Your task to perform on an android device: Clear the shopping cart on newegg. Search for "jbl flip 4" on newegg, select the first entry, add it to the cart, then select checkout. Image 0: 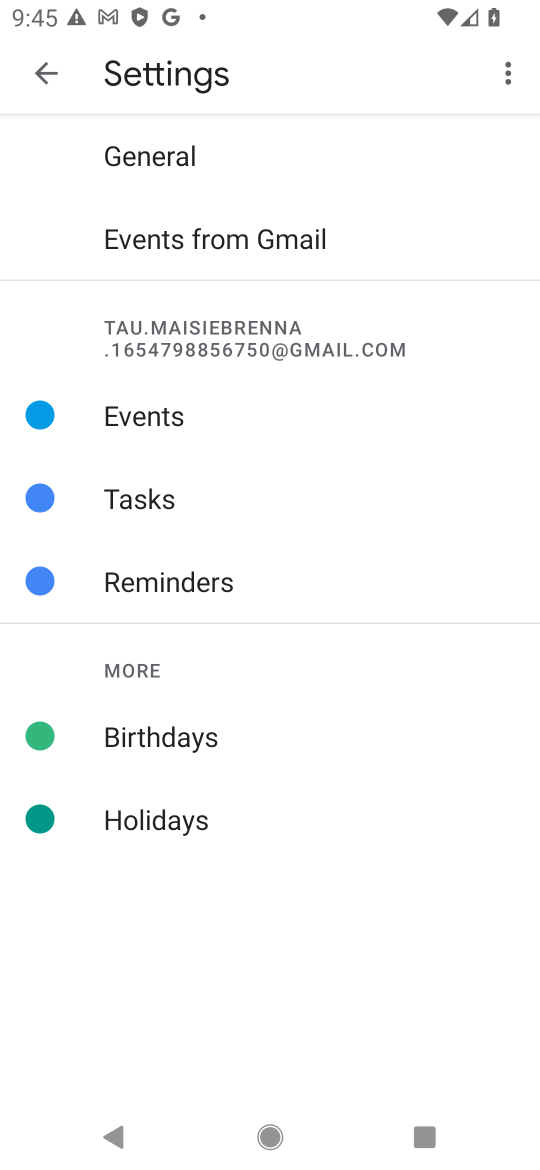
Step 0: press home button
Your task to perform on an android device: Clear the shopping cart on newegg. Search for "jbl flip 4" on newegg, select the first entry, add it to the cart, then select checkout. Image 1: 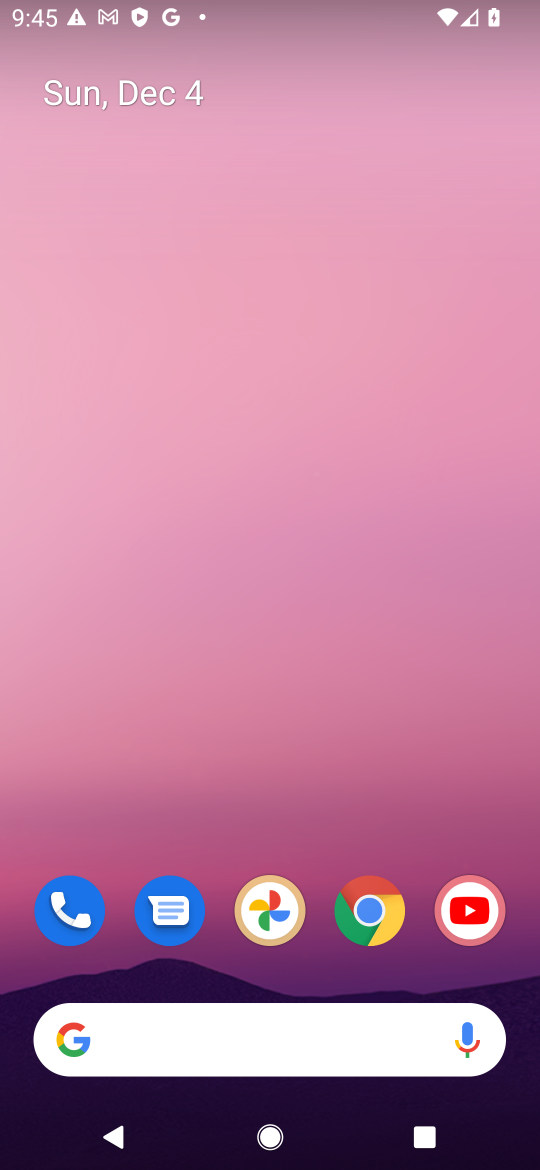
Step 1: drag from (360, 1105) to (414, 182)
Your task to perform on an android device: Clear the shopping cart on newegg. Search for "jbl flip 4" on newegg, select the first entry, add it to the cart, then select checkout. Image 2: 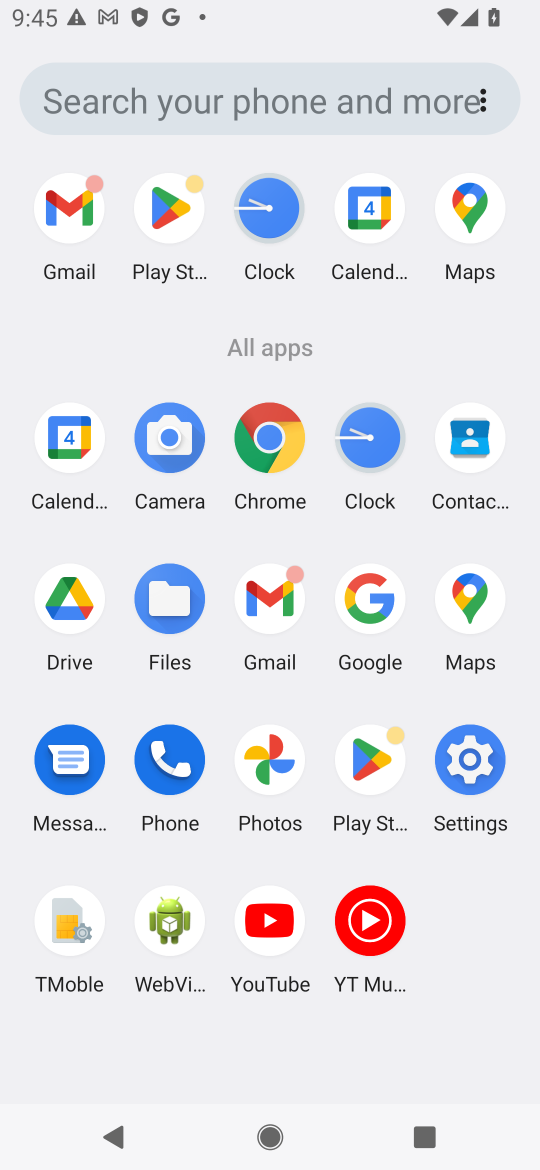
Step 2: click (269, 434)
Your task to perform on an android device: Clear the shopping cart on newegg. Search for "jbl flip 4" on newegg, select the first entry, add it to the cart, then select checkout. Image 3: 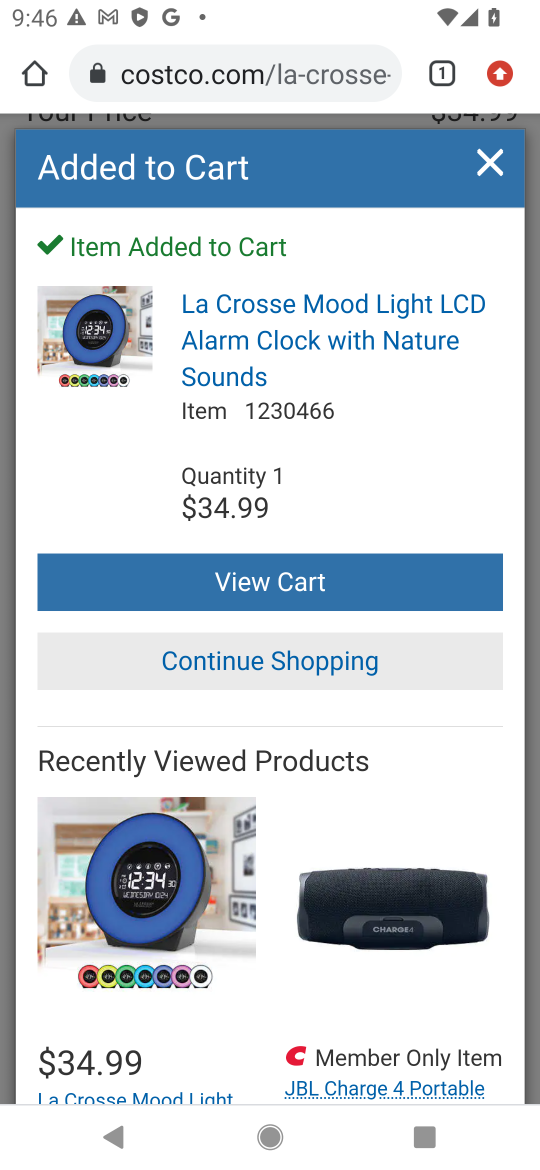
Step 3: click (156, 74)
Your task to perform on an android device: Clear the shopping cart on newegg. Search for "jbl flip 4" on newegg, select the first entry, add it to the cart, then select checkout. Image 4: 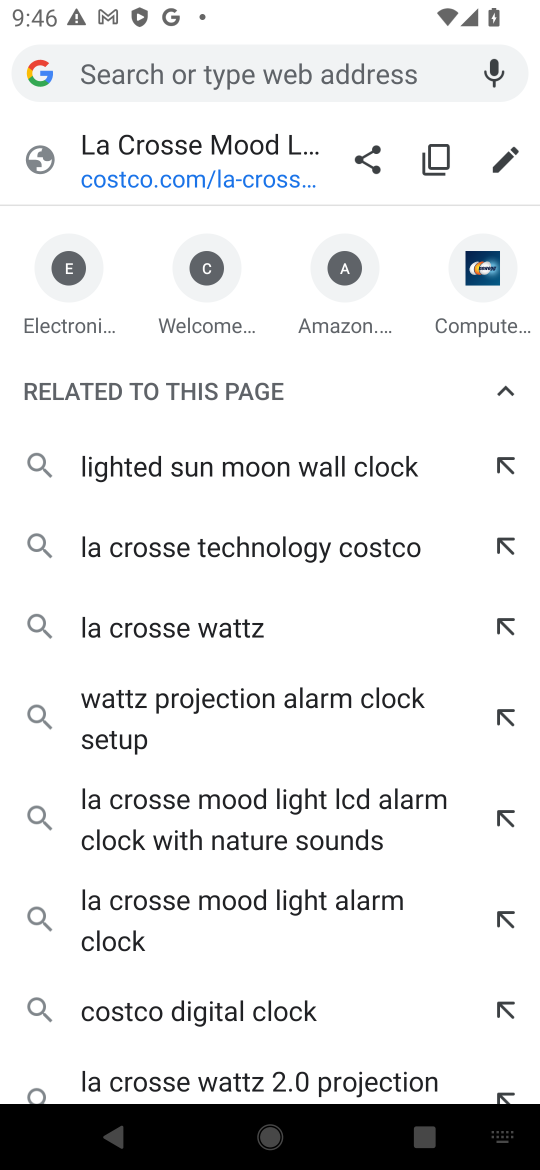
Step 4: type " newegg"
Your task to perform on an android device: Clear the shopping cart on newegg. Search for "jbl flip 4" on newegg, select the first entry, add it to the cart, then select checkout. Image 5: 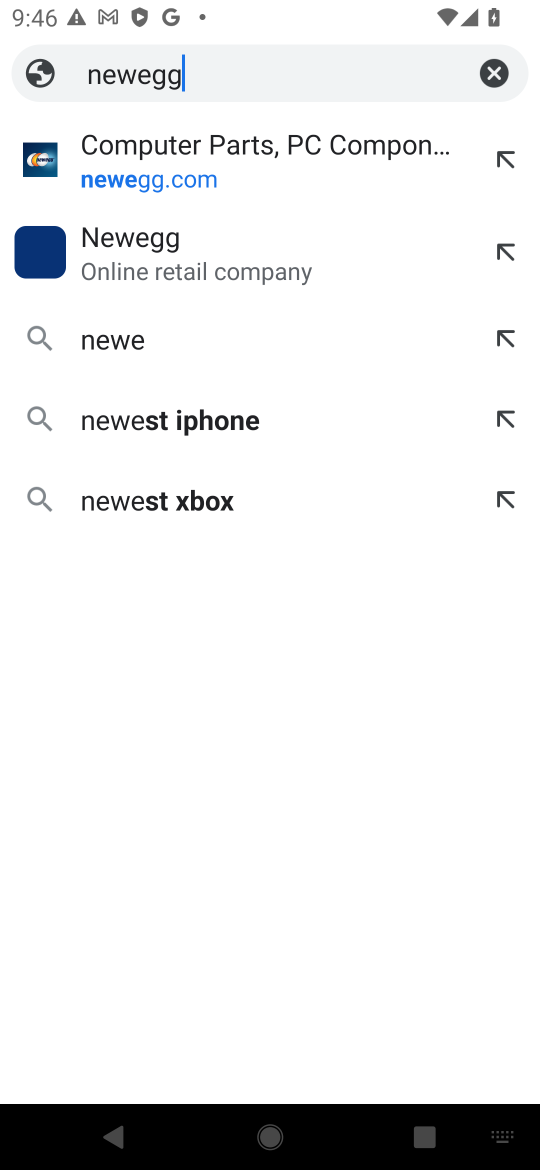
Step 5: type ""
Your task to perform on an android device: Clear the shopping cart on newegg. Search for "jbl flip 4" on newegg, select the first entry, add it to the cart, then select checkout. Image 6: 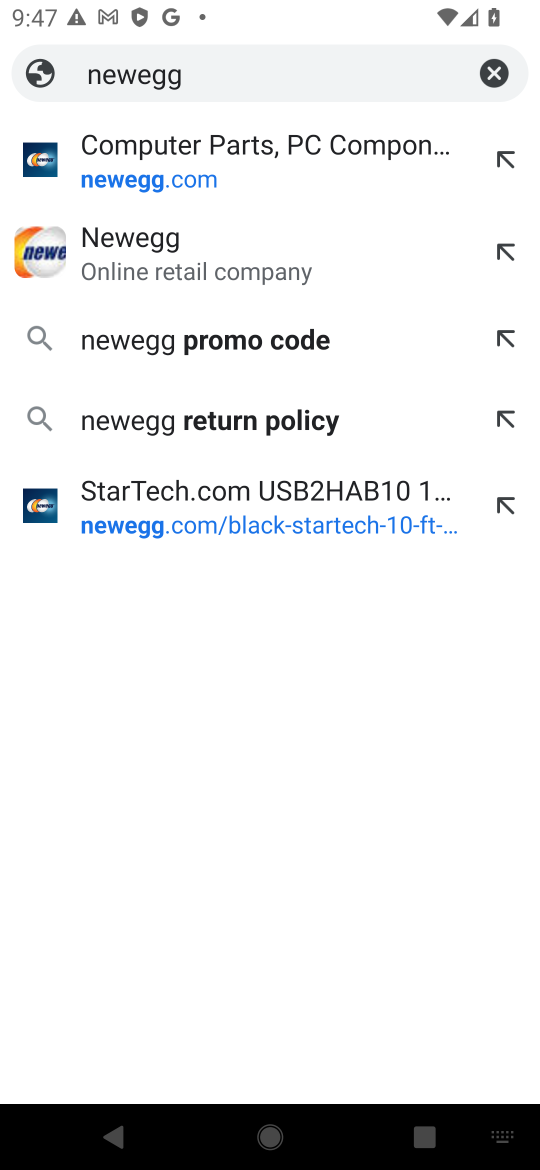
Step 6: click (134, 183)
Your task to perform on an android device: Clear the shopping cart on newegg. Search for "jbl flip 4" on newegg, select the first entry, add it to the cart, then select checkout. Image 7: 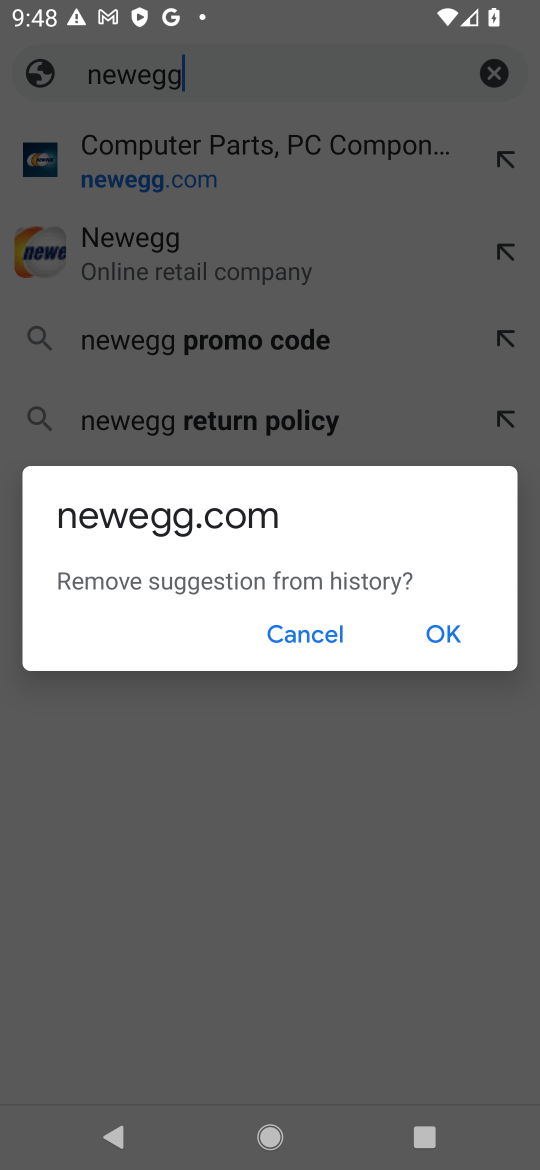
Step 7: click (311, 638)
Your task to perform on an android device: Clear the shopping cart on newegg. Search for "jbl flip 4" on newegg, select the first entry, add it to the cart, then select checkout. Image 8: 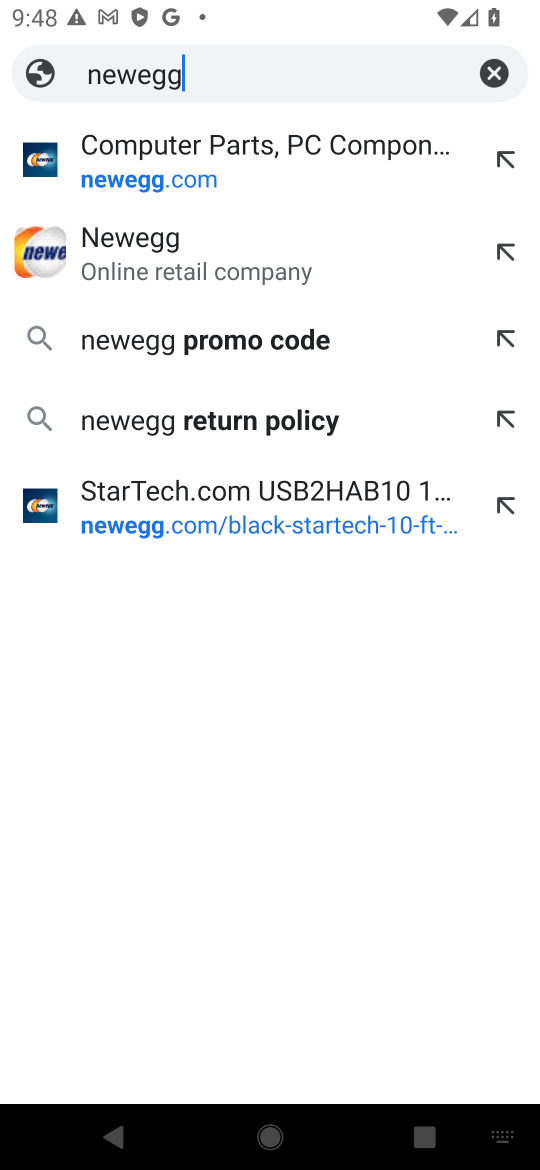
Step 8: click (128, 181)
Your task to perform on an android device: Clear the shopping cart on newegg. Search for "jbl flip 4" on newegg, select the first entry, add it to the cart, then select checkout. Image 9: 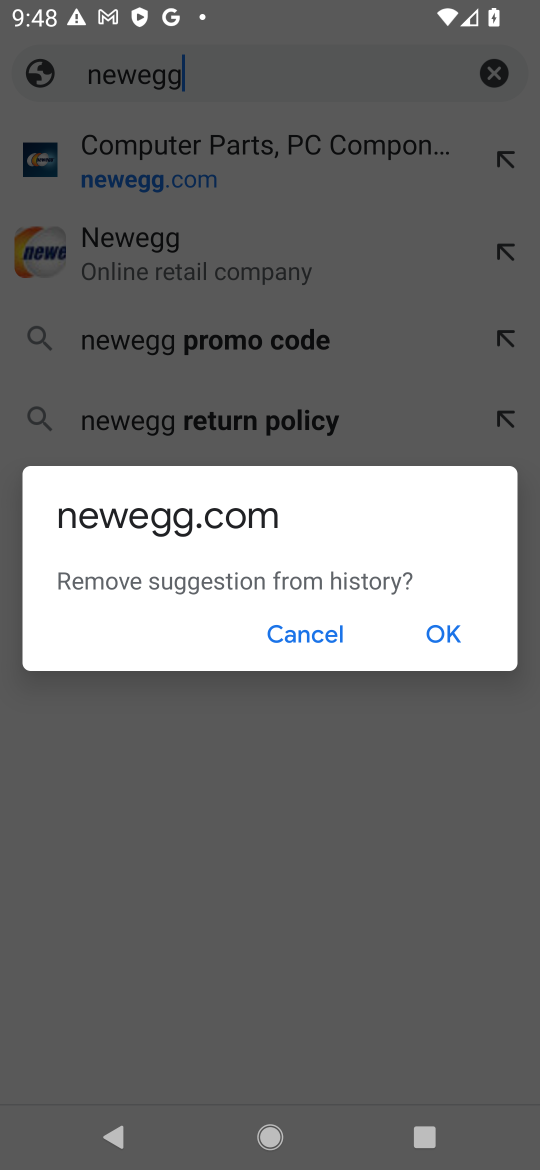
Step 9: click (454, 621)
Your task to perform on an android device: Clear the shopping cart on newegg. Search for "jbl flip 4" on newegg, select the first entry, add it to the cart, then select checkout. Image 10: 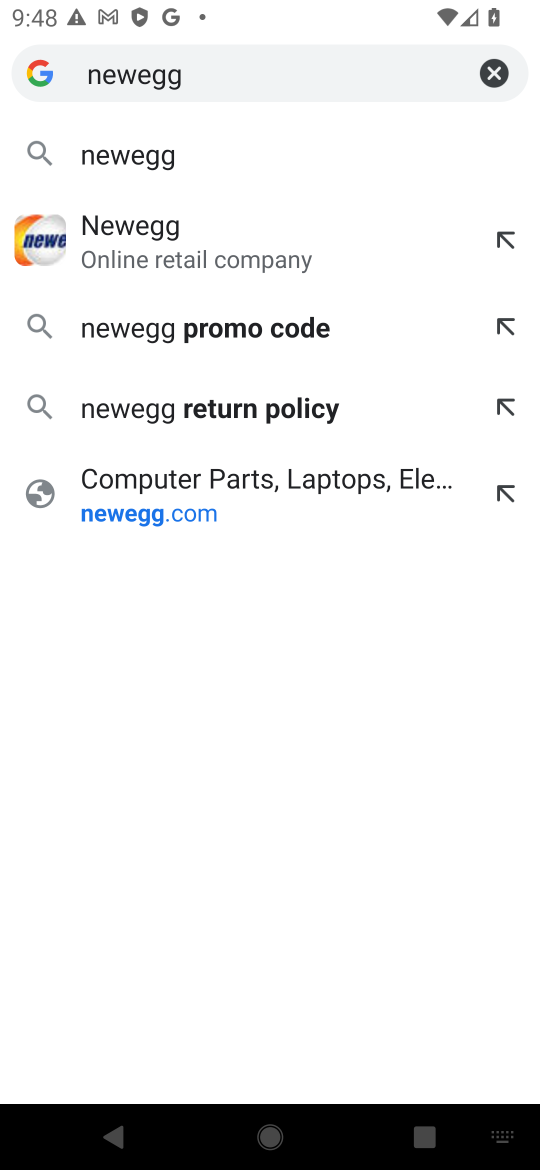
Step 10: click (162, 510)
Your task to perform on an android device: Clear the shopping cart on newegg. Search for "jbl flip 4" on newegg, select the first entry, add it to the cart, then select checkout. Image 11: 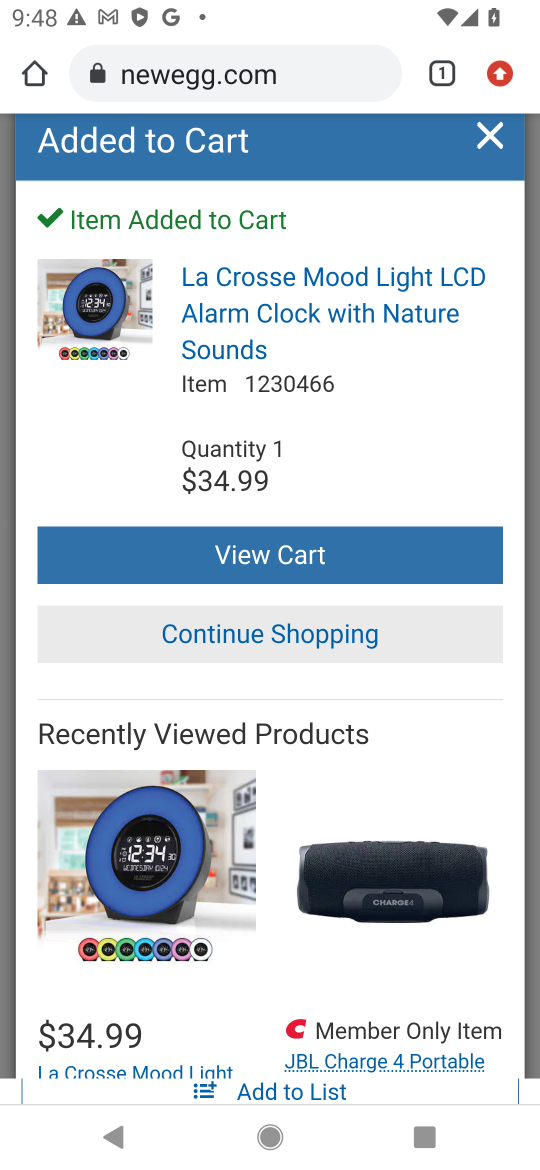
Step 11: click (487, 137)
Your task to perform on an android device: Clear the shopping cart on newegg. Search for "jbl flip 4" on newegg, select the first entry, add it to the cart, then select checkout. Image 12: 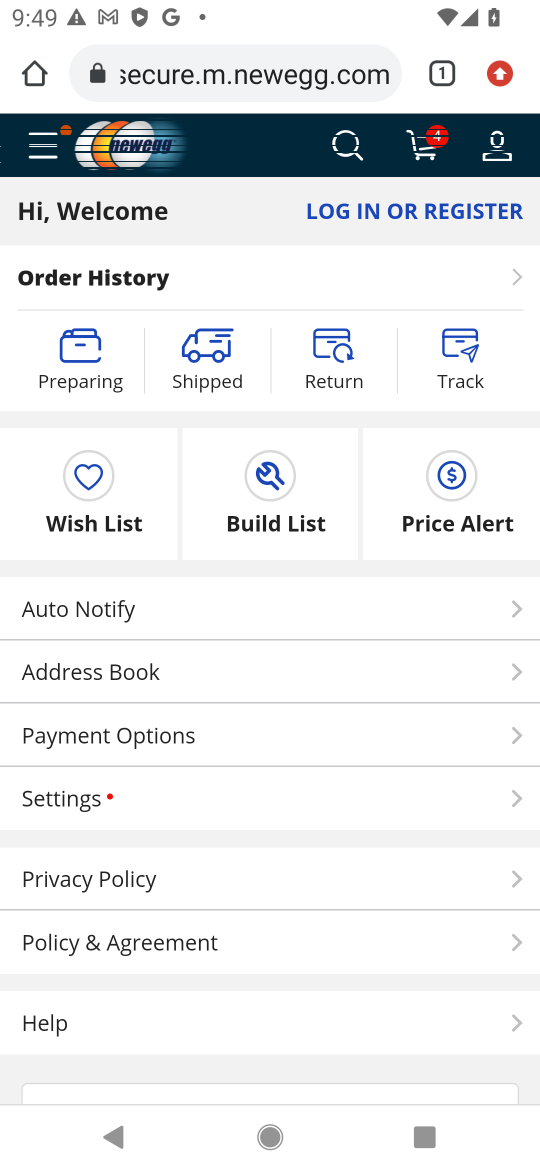
Step 12: click (348, 145)
Your task to perform on an android device: Clear the shopping cart on newegg. Search for "jbl flip 4" on newegg, select the first entry, add it to the cart, then select checkout. Image 13: 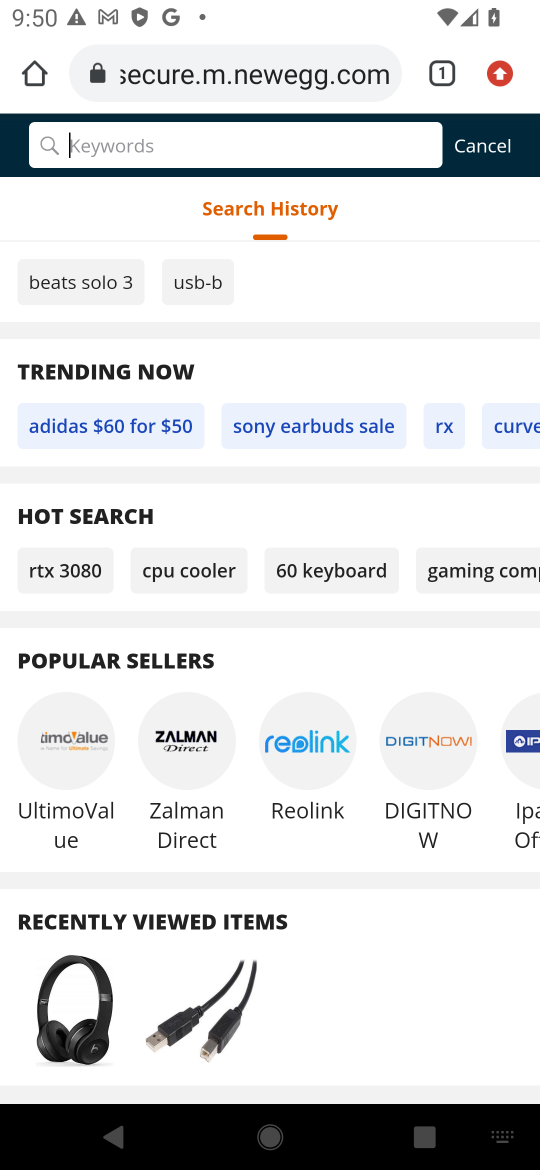
Step 13: type ""jbl flip 4"
Your task to perform on an android device: Clear the shopping cart on newegg. Search for "jbl flip 4" on newegg, select the first entry, add it to the cart, then select checkout. Image 14: 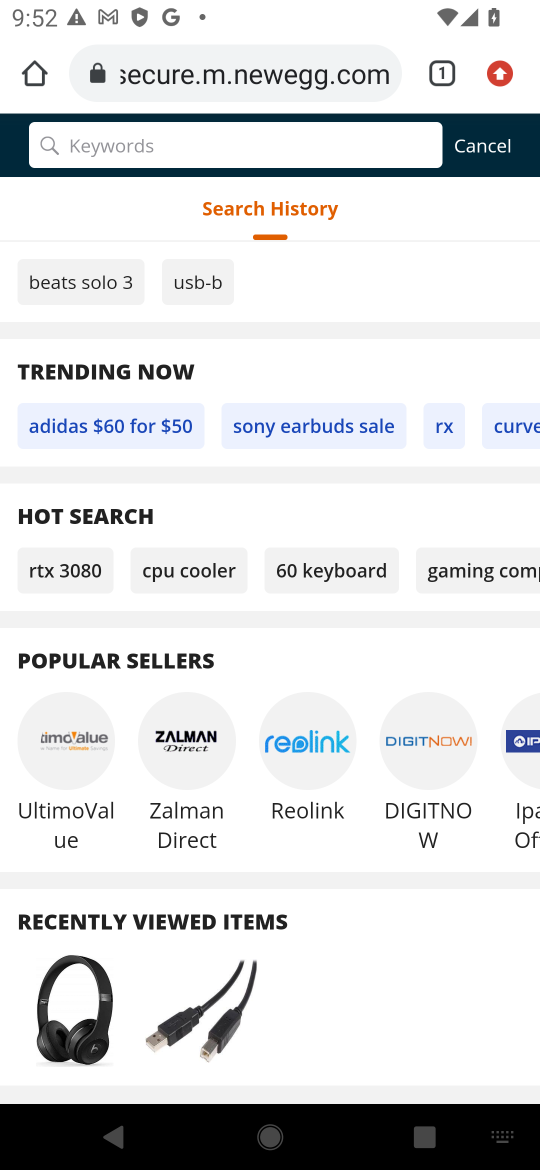
Step 14: type "jbl flip 4"
Your task to perform on an android device: Clear the shopping cart on newegg. Search for "jbl flip 4" on newegg, select the first entry, add it to the cart, then select checkout. Image 15: 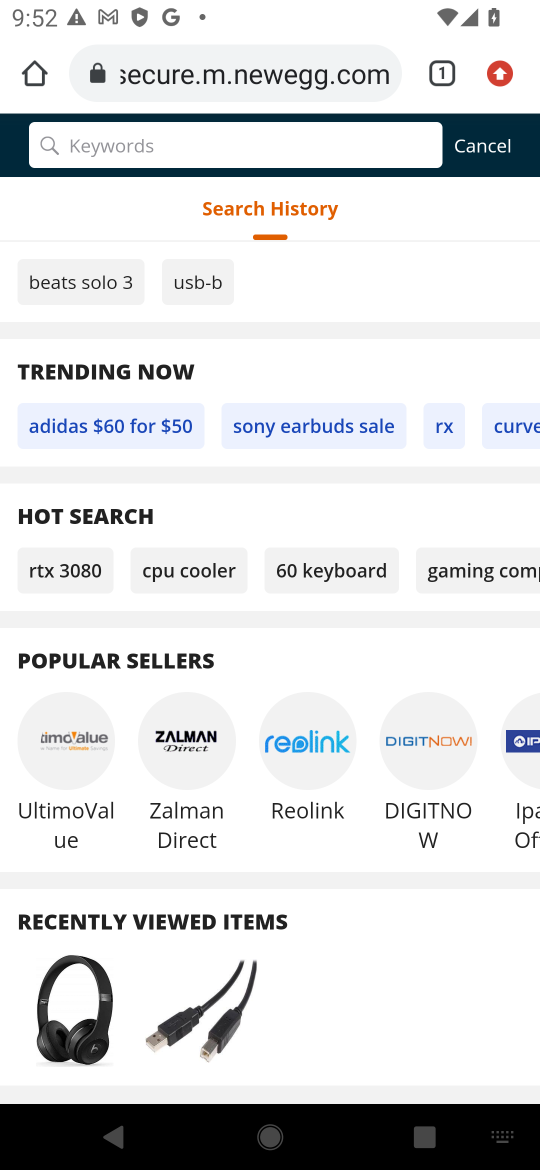
Step 15: type ""
Your task to perform on an android device: Clear the shopping cart on newegg. Search for "jbl flip 4" on newegg, select the first entry, add it to the cart, then select checkout. Image 16: 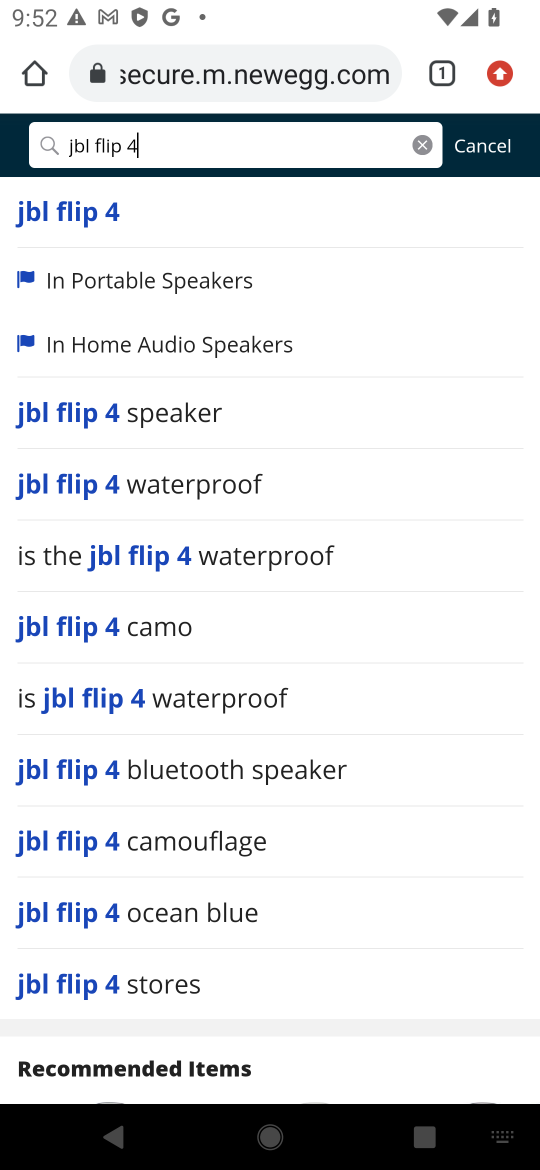
Step 16: click (60, 211)
Your task to perform on an android device: Clear the shopping cart on newegg. Search for "jbl flip 4" on newegg, select the first entry, add it to the cart, then select checkout. Image 17: 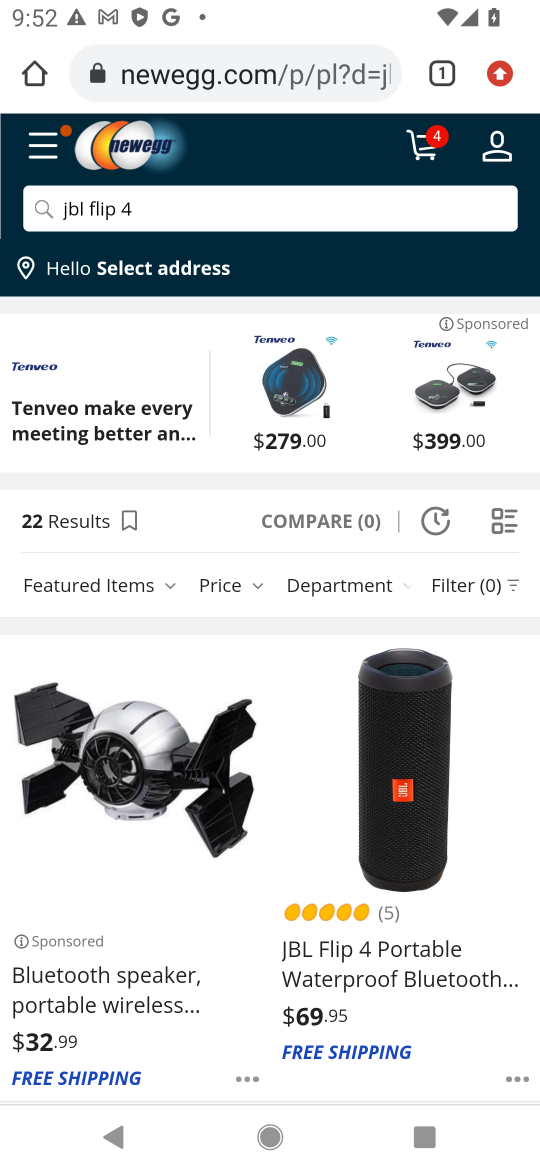
Step 17: click (414, 762)
Your task to perform on an android device: Clear the shopping cart on newegg. Search for "jbl flip 4" on newegg, select the first entry, add it to the cart, then select checkout. Image 18: 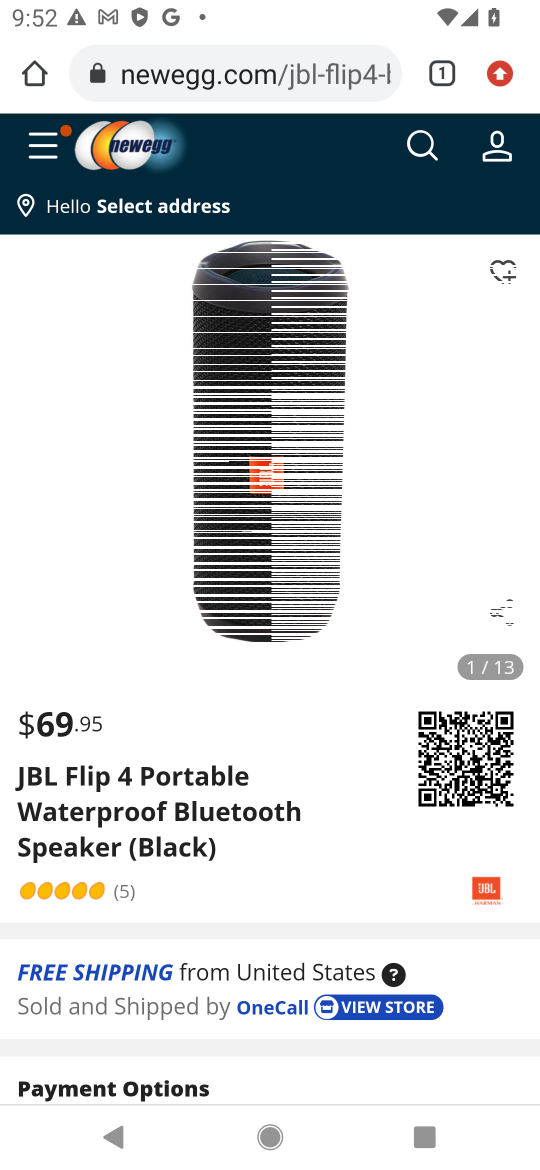
Step 18: click (262, 1063)
Your task to perform on an android device: Clear the shopping cart on newegg. Search for "jbl flip 4" on newegg, select the first entry, add it to the cart, then select checkout. Image 19: 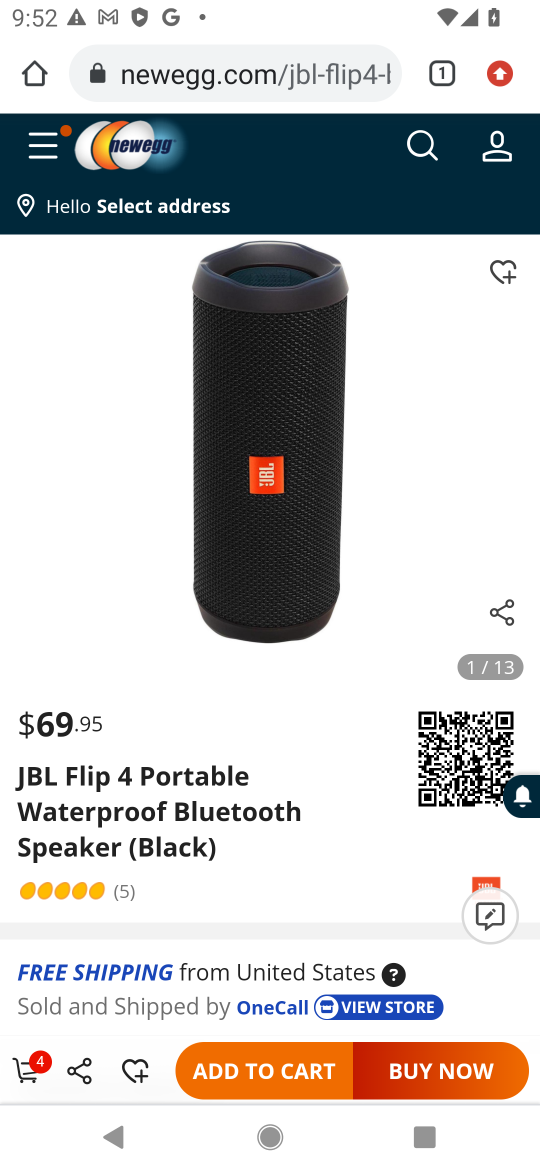
Step 19: task complete